Your task to perform on an android device: Open Reddit.com Image 0: 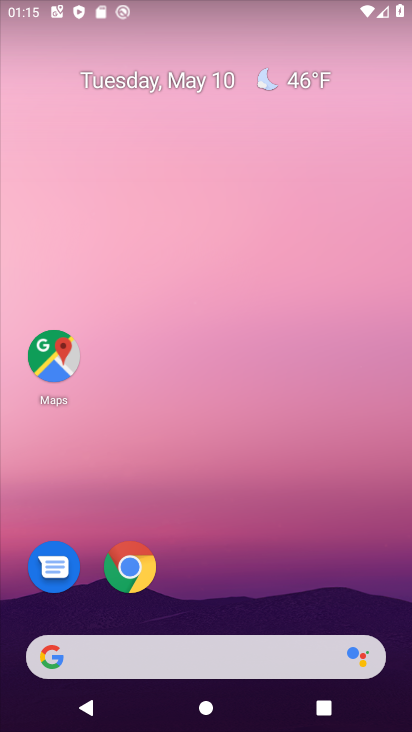
Step 0: click (119, 577)
Your task to perform on an android device: Open Reddit.com Image 1: 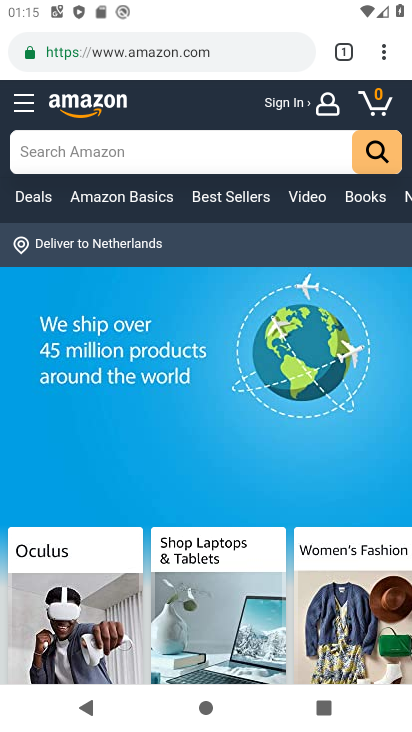
Step 1: click (169, 48)
Your task to perform on an android device: Open Reddit.com Image 2: 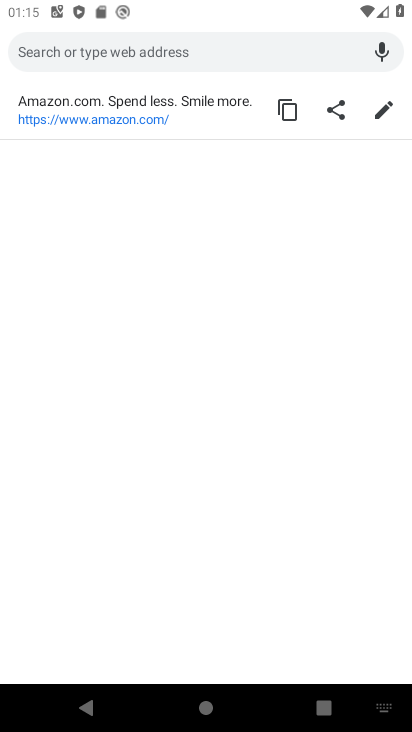
Step 2: type "reddit.com"
Your task to perform on an android device: Open Reddit.com Image 3: 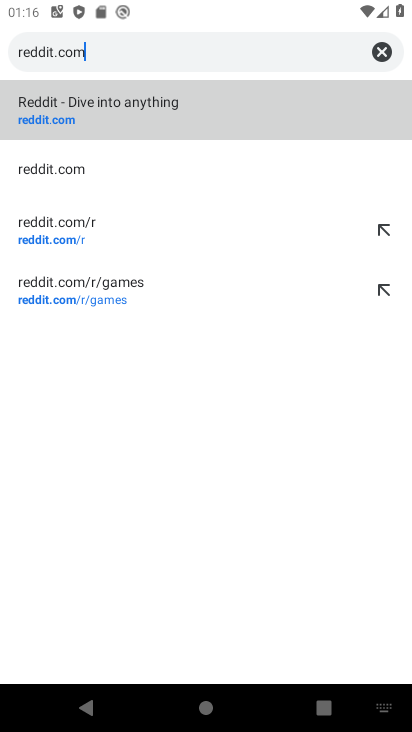
Step 3: click (40, 125)
Your task to perform on an android device: Open Reddit.com Image 4: 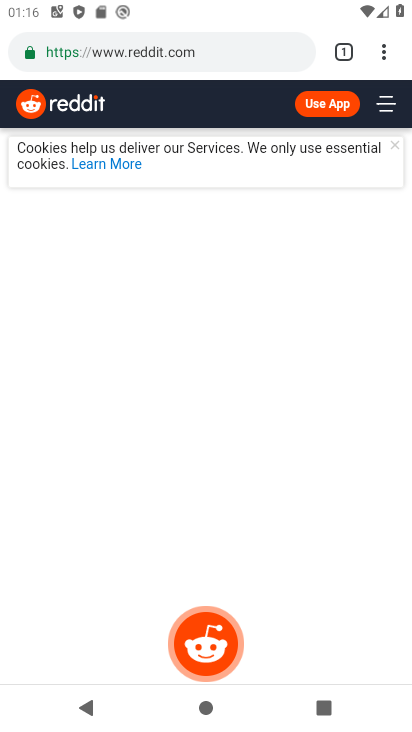
Step 4: task complete